Your task to perform on an android device: install app "Gmail" Image 0: 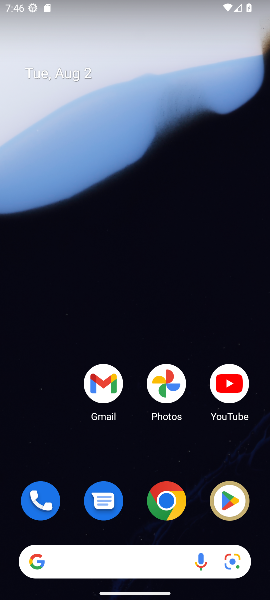
Step 0: drag from (136, 528) to (157, 125)
Your task to perform on an android device: install app "Gmail" Image 1: 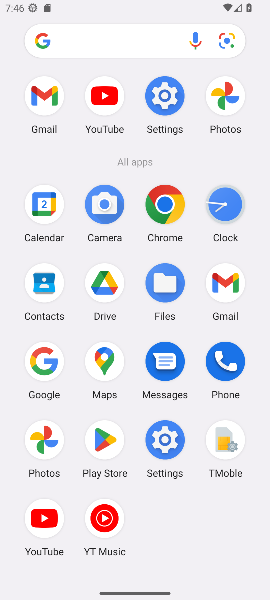
Step 1: click (112, 431)
Your task to perform on an android device: install app "Gmail" Image 2: 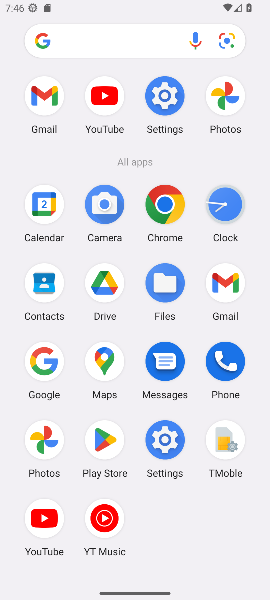
Step 2: click (111, 432)
Your task to perform on an android device: install app "Gmail" Image 3: 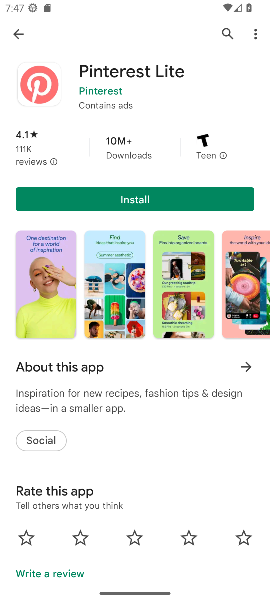
Step 3: click (111, 435)
Your task to perform on an android device: install app "Gmail" Image 4: 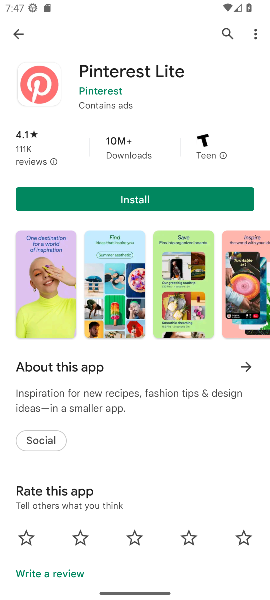
Step 4: drag from (114, 419) to (149, 231)
Your task to perform on an android device: install app "Gmail" Image 5: 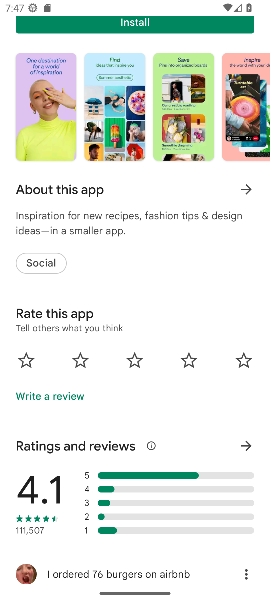
Step 5: drag from (169, 106) to (215, 393)
Your task to perform on an android device: install app "Gmail" Image 6: 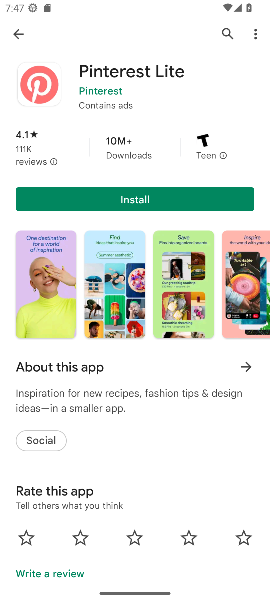
Step 6: click (216, 31)
Your task to perform on an android device: install app "Gmail" Image 7: 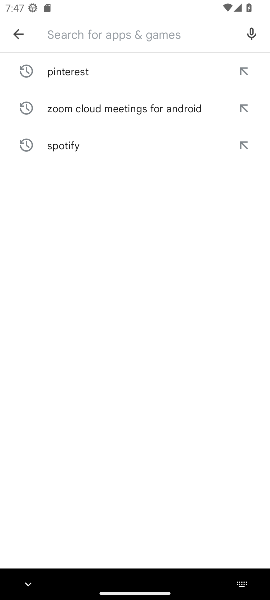
Step 7: type "Gmail"
Your task to perform on an android device: install app "Gmail" Image 8: 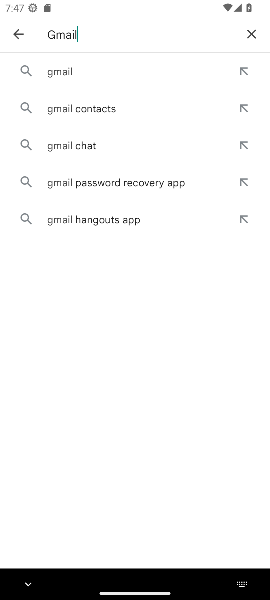
Step 8: click (96, 70)
Your task to perform on an android device: install app "Gmail" Image 9: 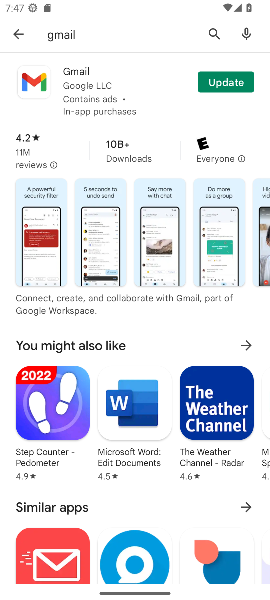
Step 9: click (67, 69)
Your task to perform on an android device: install app "Gmail" Image 10: 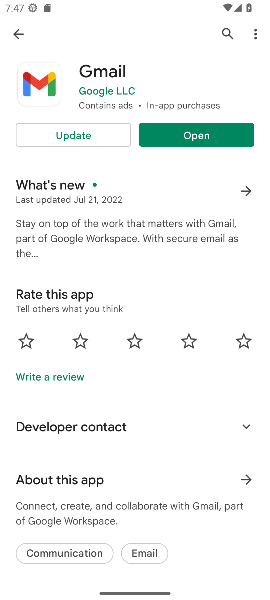
Step 10: task complete